Your task to perform on an android device: Open display settings Image 0: 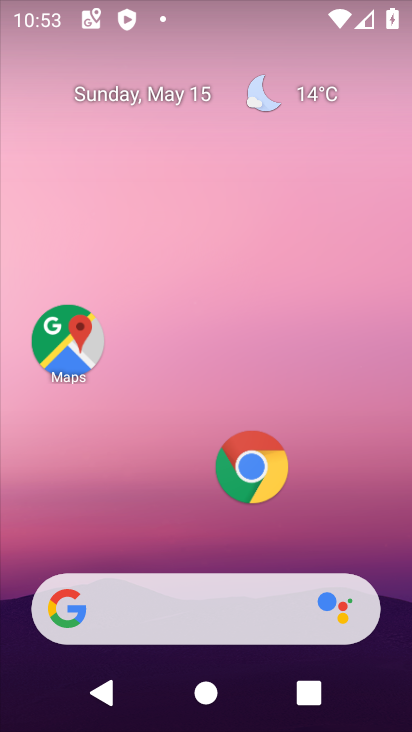
Step 0: drag from (204, 546) to (201, 138)
Your task to perform on an android device: Open display settings Image 1: 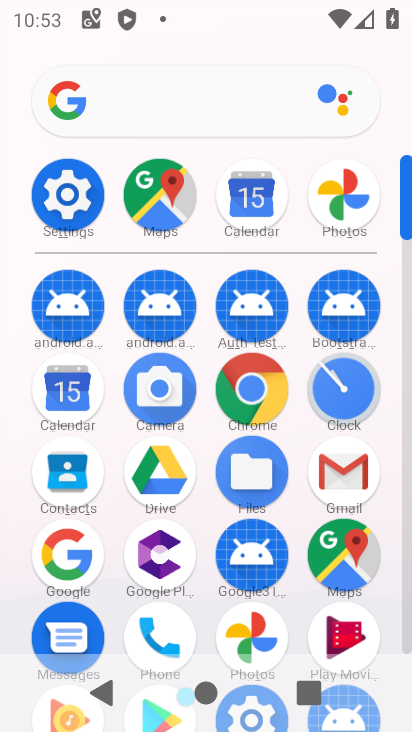
Step 1: click (73, 208)
Your task to perform on an android device: Open display settings Image 2: 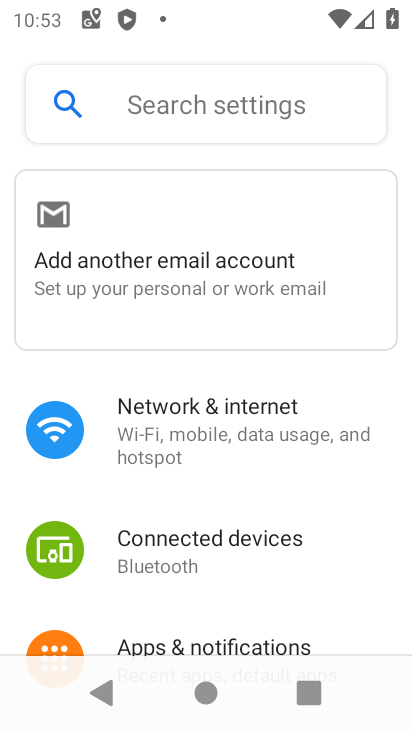
Step 2: drag from (244, 554) to (251, 64)
Your task to perform on an android device: Open display settings Image 3: 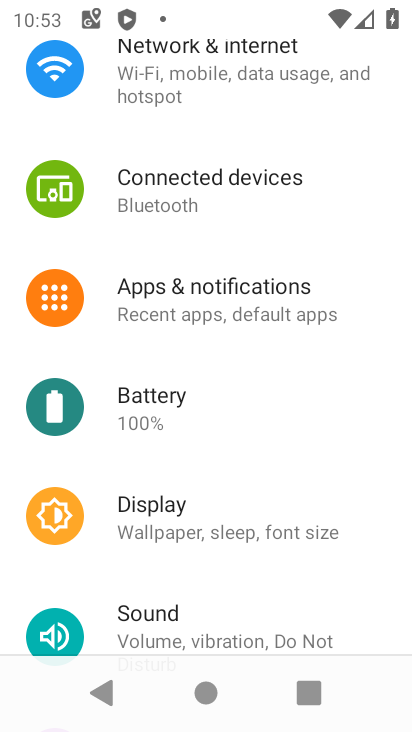
Step 3: click (194, 549)
Your task to perform on an android device: Open display settings Image 4: 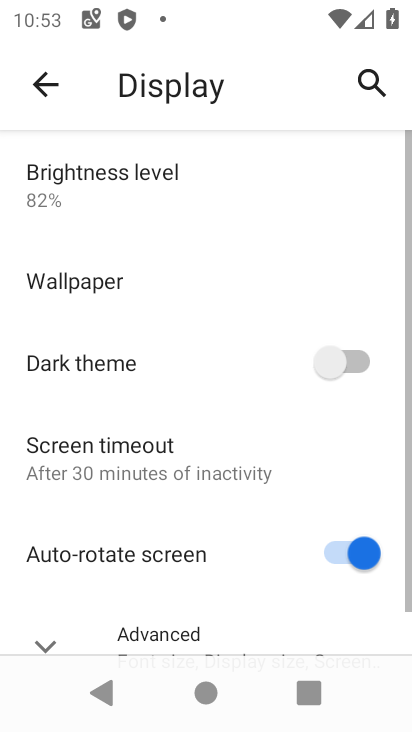
Step 4: task complete